Your task to perform on an android device: turn on data saver in the chrome app Image 0: 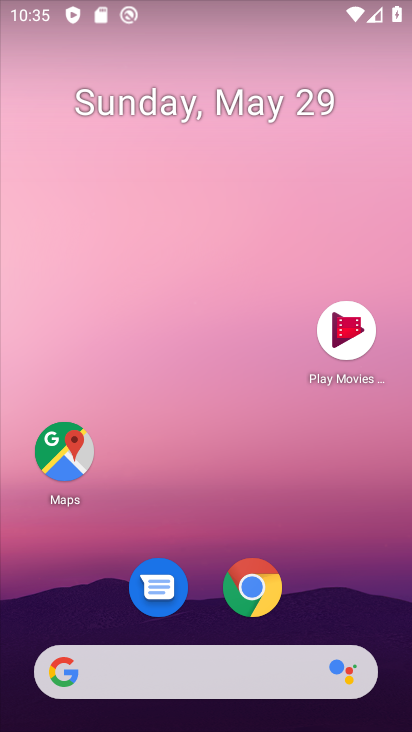
Step 0: drag from (335, 582) to (208, 59)
Your task to perform on an android device: turn on data saver in the chrome app Image 1: 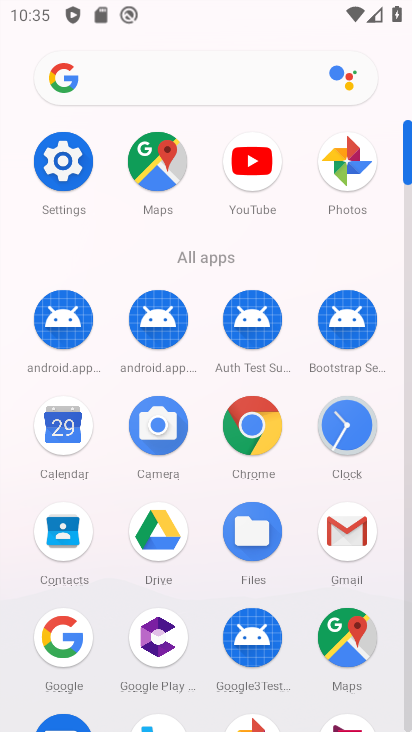
Step 1: click (253, 410)
Your task to perform on an android device: turn on data saver in the chrome app Image 2: 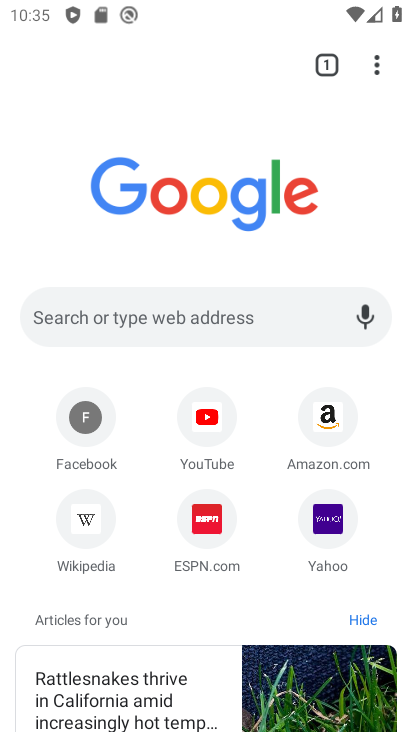
Step 2: click (388, 74)
Your task to perform on an android device: turn on data saver in the chrome app Image 3: 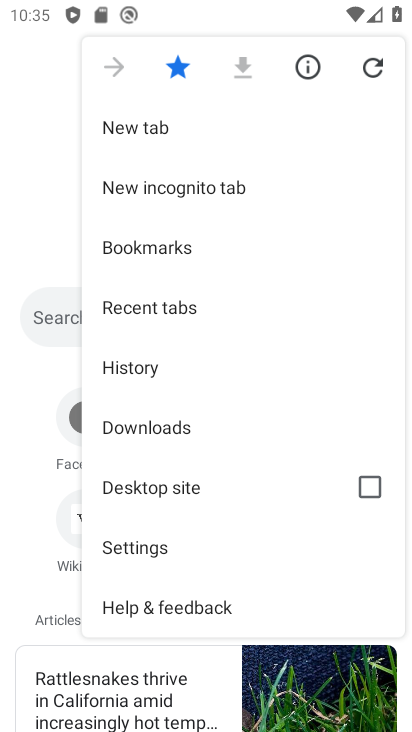
Step 3: click (202, 551)
Your task to perform on an android device: turn on data saver in the chrome app Image 4: 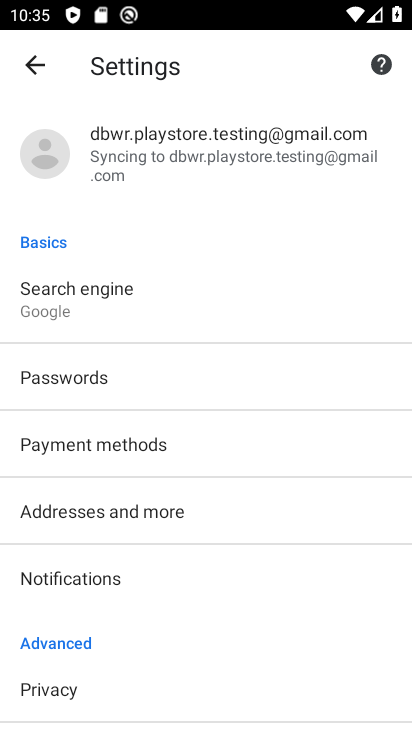
Step 4: drag from (196, 647) to (157, 182)
Your task to perform on an android device: turn on data saver in the chrome app Image 5: 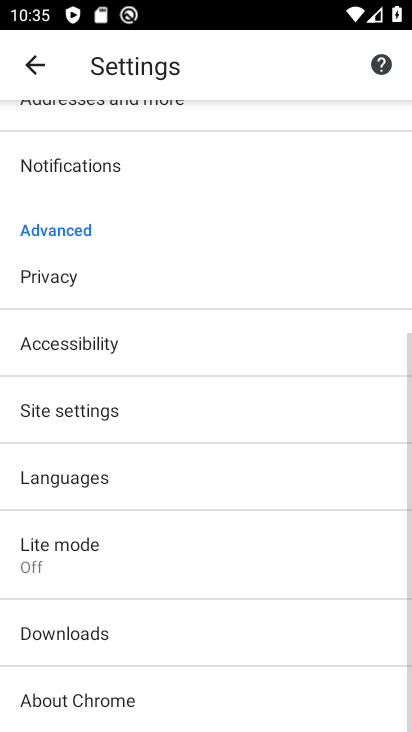
Step 5: click (148, 557)
Your task to perform on an android device: turn on data saver in the chrome app Image 6: 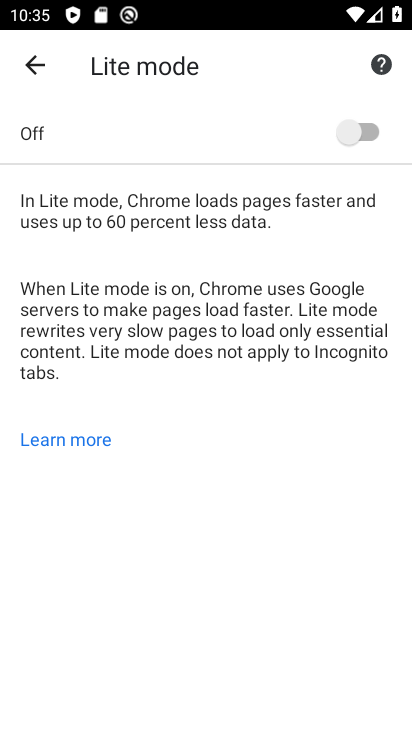
Step 6: click (364, 122)
Your task to perform on an android device: turn on data saver in the chrome app Image 7: 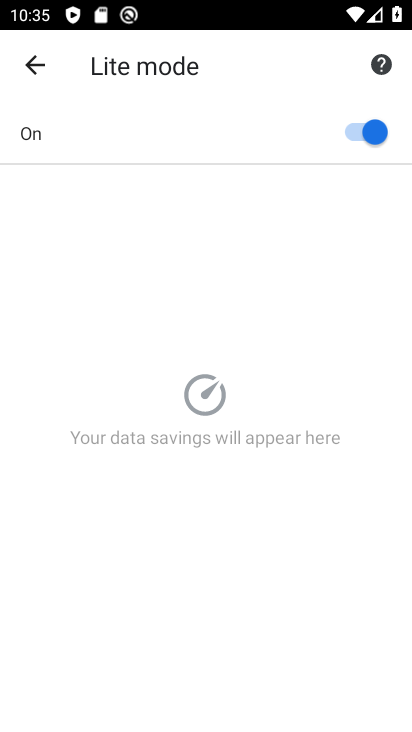
Step 7: task complete